Your task to perform on an android device: delete a single message in the gmail app Image 0: 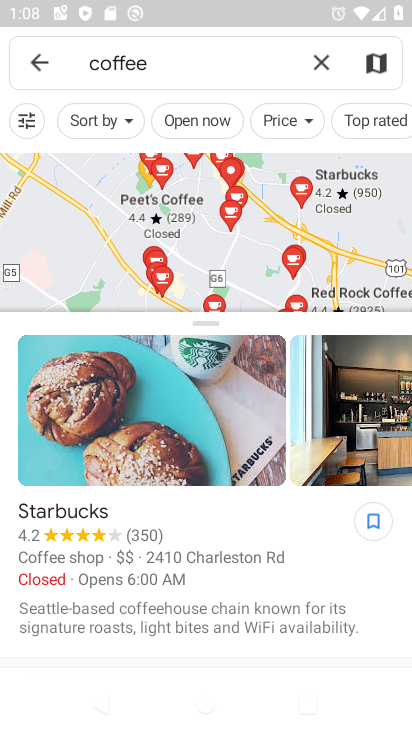
Step 0: press home button
Your task to perform on an android device: delete a single message in the gmail app Image 1: 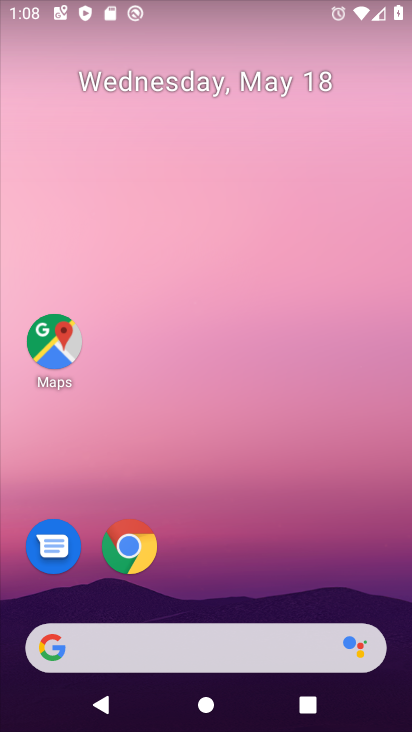
Step 1: drag from (259, 604) to (301, 49)
Your task to perform on an android device: delete a single message in the gmail app Image 2: 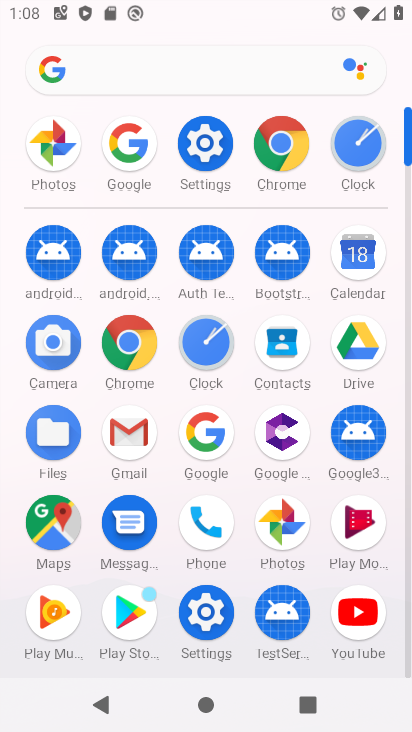
Step 2: click (138, 441)
Your task to perform on an android device: delete a single message in the gmail app Image 3: 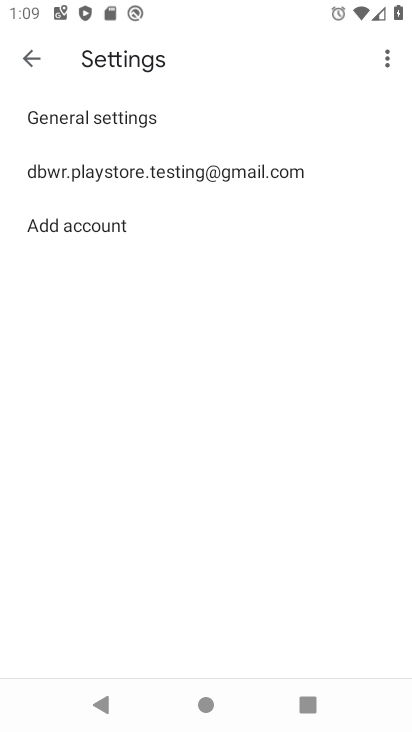
Step 3: click (30, 52)
Your task to perform on an android device: delete a single message in the gmail app Image 4: 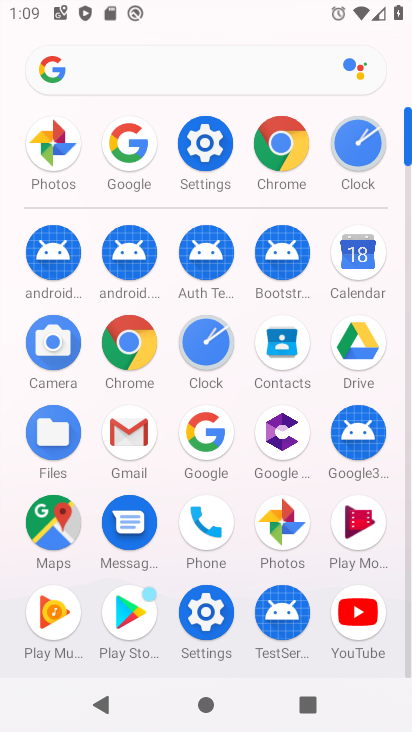
Step 4: click (133, 447)
Your task to perform on an android device: delete a single message in the gmail app Image 5: 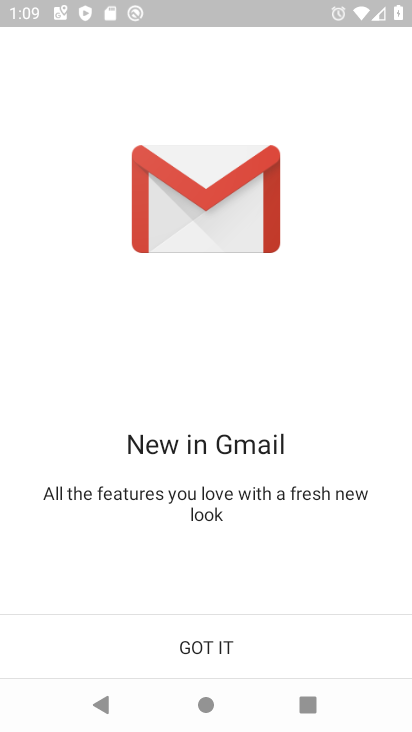
Step 5: click (225, 650)
Your task to perform on an android device: delete a single message in the gmail app Image 6: 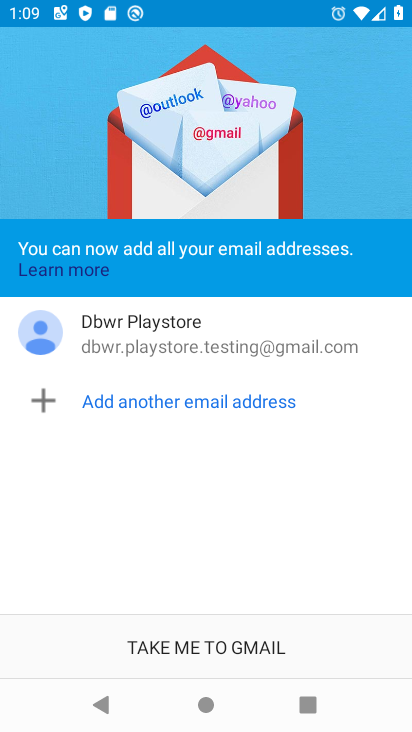
Step 6: click (214, 641)
Your task to perform on an android device: delete a single message in the gmail app Image 7: 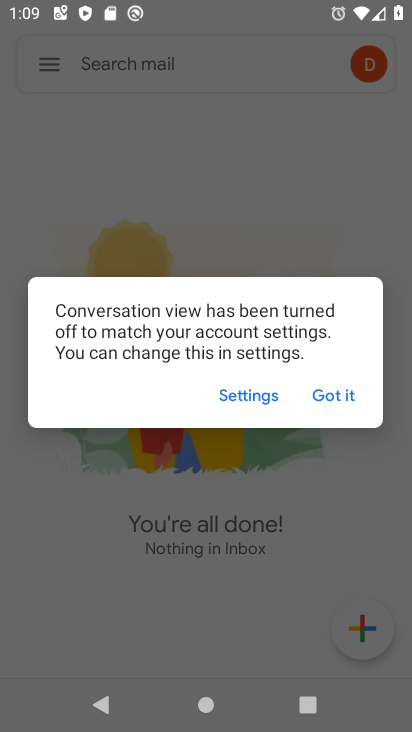
Step 7: click (326, 395)
Your task to perform on an android device: delete a single message in the gmail app Image 8: 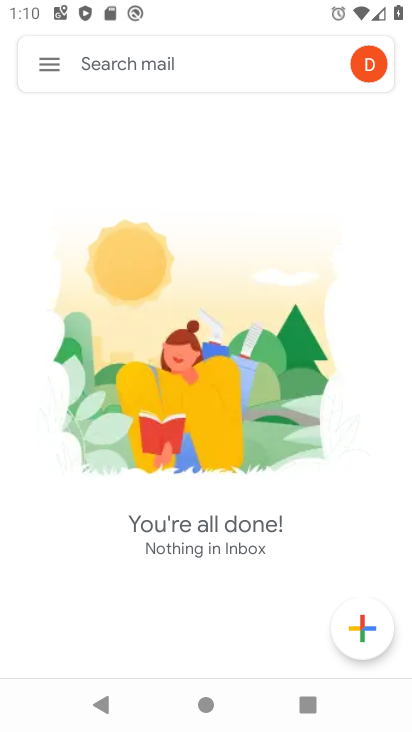
Step 8: click (63, 72)
Your task to perform on an android device: delete a single message in the gmail app Image 9: 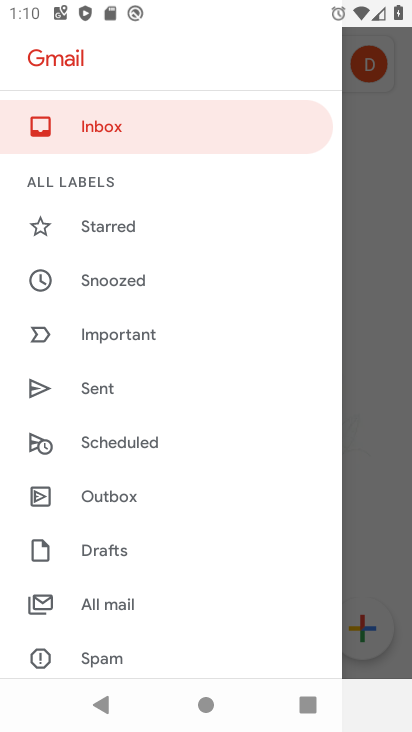
Step 9: click (128, 600)
Your task to perform on an android device: delete a single message in the gmail app Image 10: 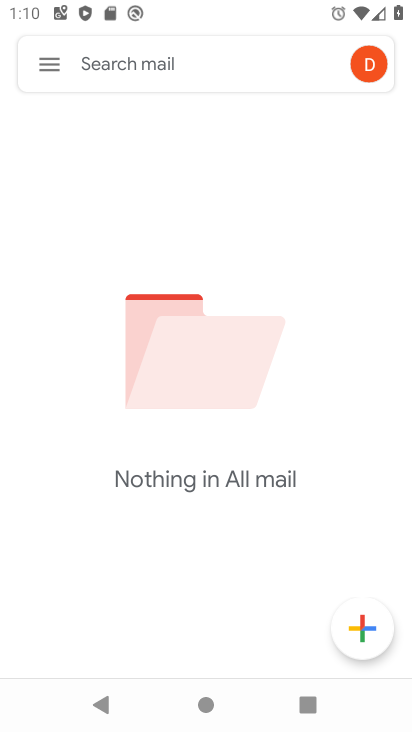
Step 10: task complete